Your task to perform on an android device: Is it going to rain this weekend? Image 0: 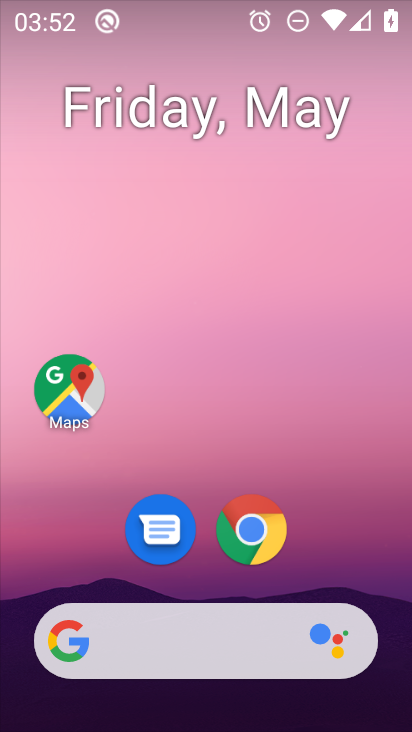
Step 0: drag from (9, 255) to (396, 258)
Your task to perform on an android device: Is it going to rain this weekend? Image 1: 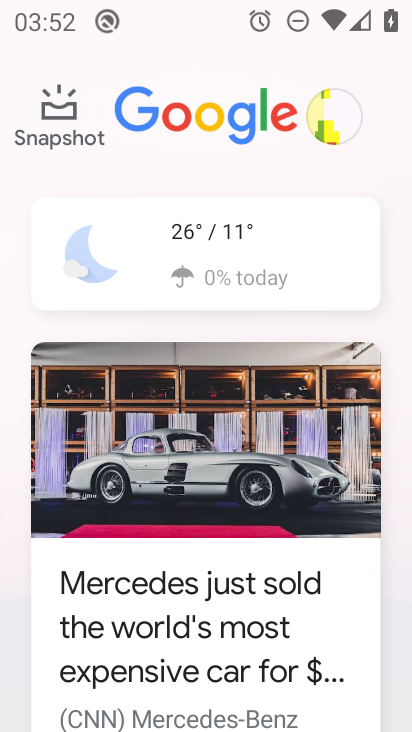
Step 1: click (219, 238)
Your task to perform on an android device: Is it going to rain this weekend? Image 2: 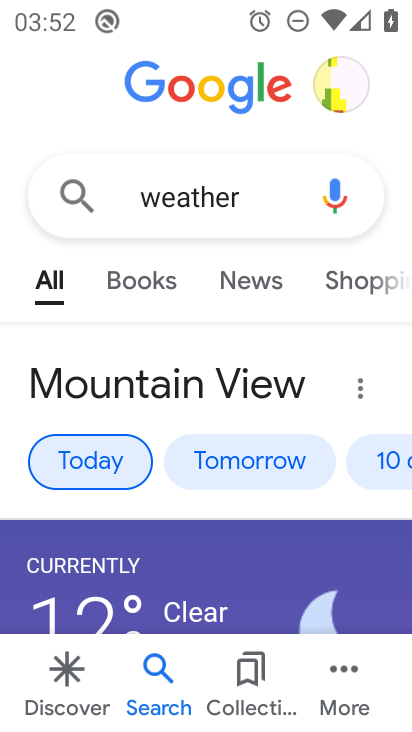
Step 2: click (105, 453)
Your task to perform on an android device: Is it going to rain this weekend? Image 3: 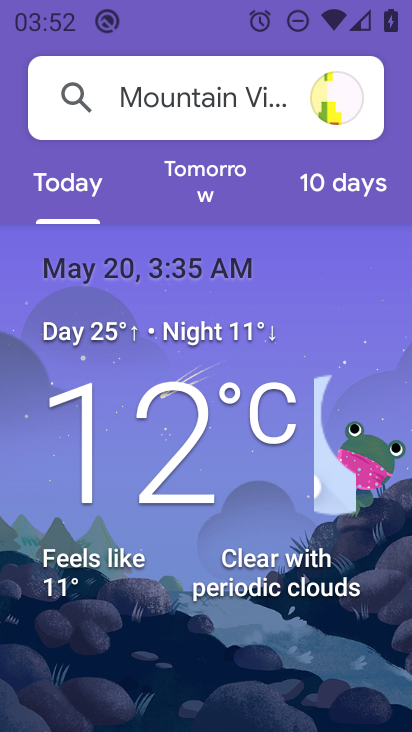
Step 3: click (346, 185)
Your task to perform on an android device: Is it going to rain this weekend? Image 4: 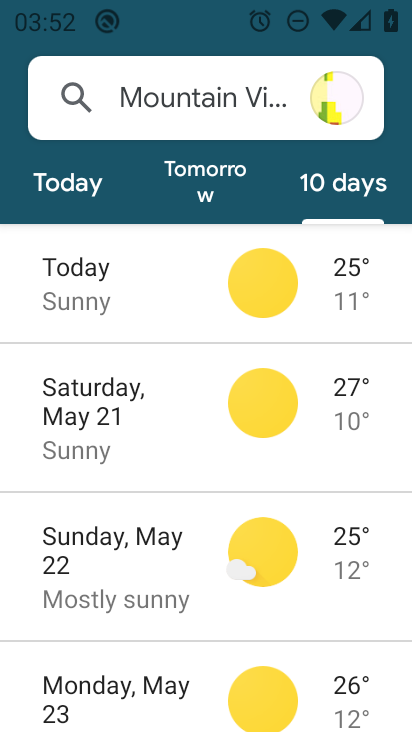
Step 4: task complete